Your task to perform on an android device: Do I have any events this weekend? Image 0: 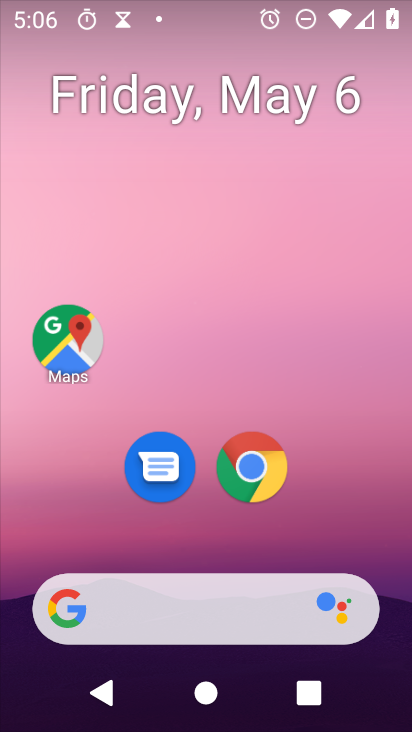
Step 0: drag from (275, 595) to (312, 95)
Your task to perform on an android device: Do I have any events this weekend? Image 1: 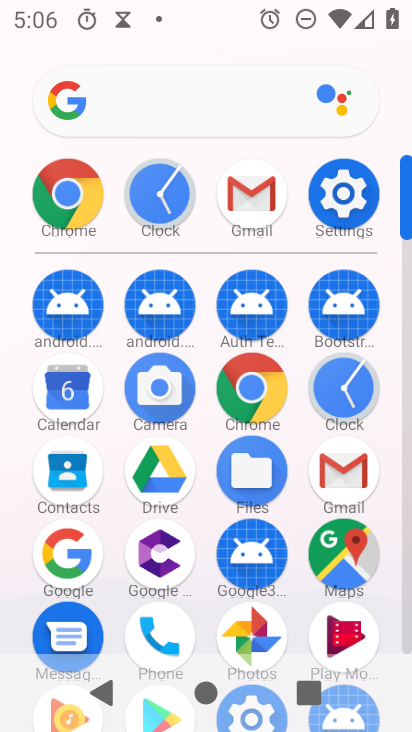
Step 1: click (351, 552)
Your task to perform on an android device: Do I have any events this weekend? Image 2: 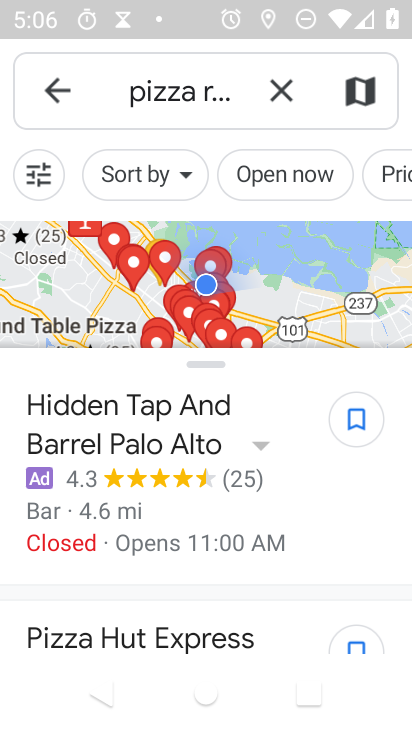
Step 2: press home button
Your task to perform on an android device: Do I have any events this weekend? Image 3: 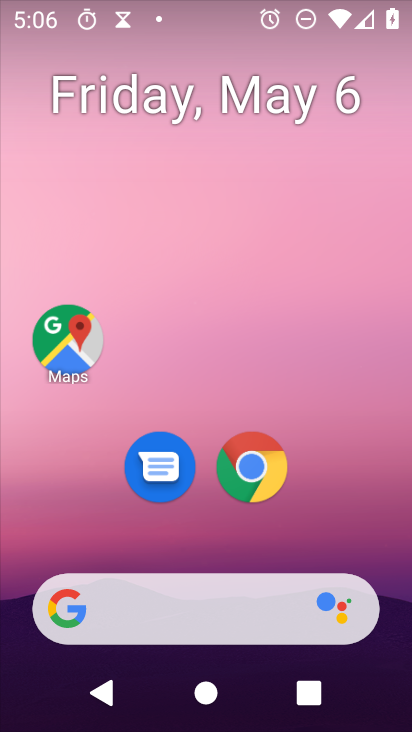
Step 3: drag from (264, 549) to (268, 43)
Your task to perform on an android device: Do I have any events this weekend? Image 4: 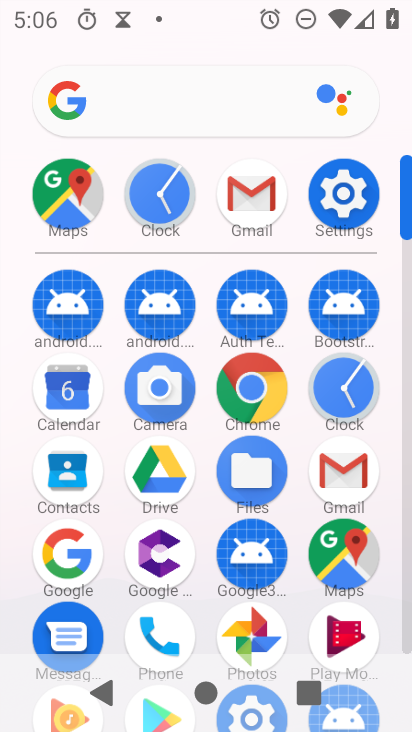
Step 4: click (91, 390)
Your task to perform on an android device: Do I have any events this weekend? Image 5: 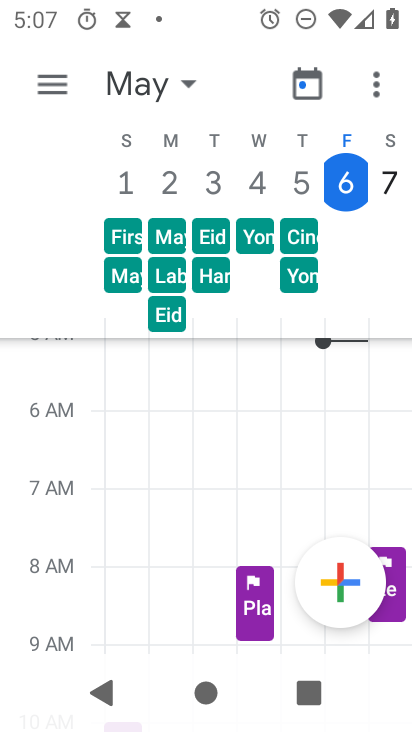
Step 5: drag from (304, 523) to (235, 224)
Your task to perform on an android device: Do I have any events this weekend? Image 6: 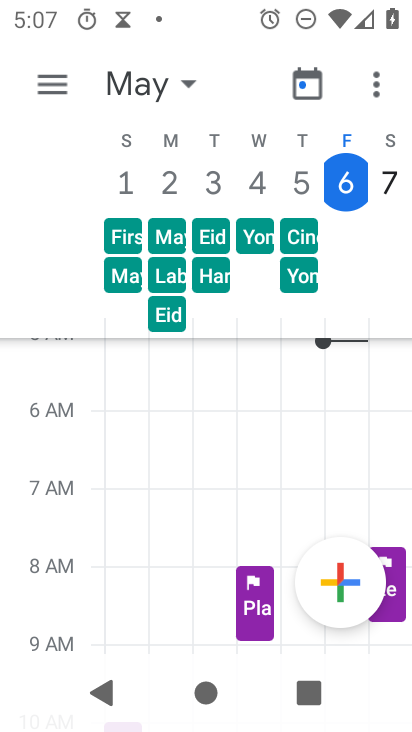
Step 6: drag from (191, 527) to (226, 244)
Your task to perform on an android device: Do I have any events this weekend? Image 7: 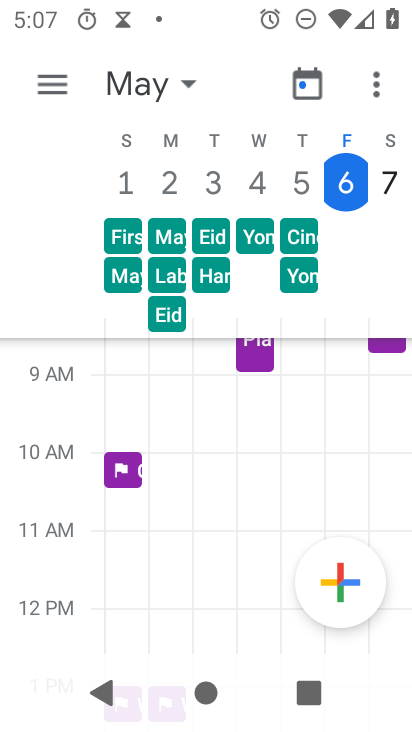
Step 7: drag from (202, 524) to (251, 201)
Your task to perform on an android device: Do I have any events this weekend? Image 8: 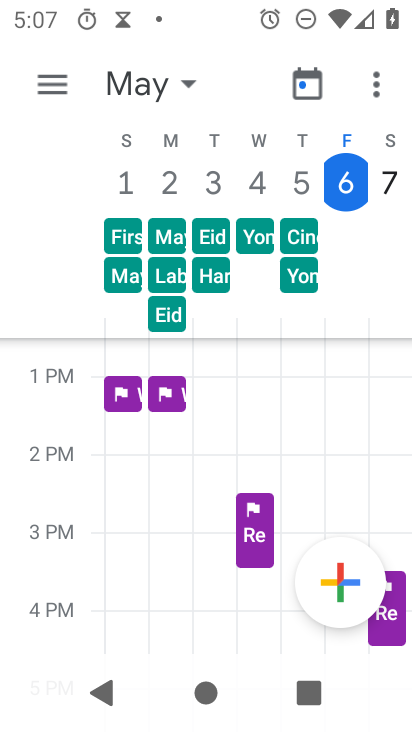
Step 8: drag from (252, 488) to (269, 311)
Your task to perform on an android device: Do I have any events this weekend? Image 9: 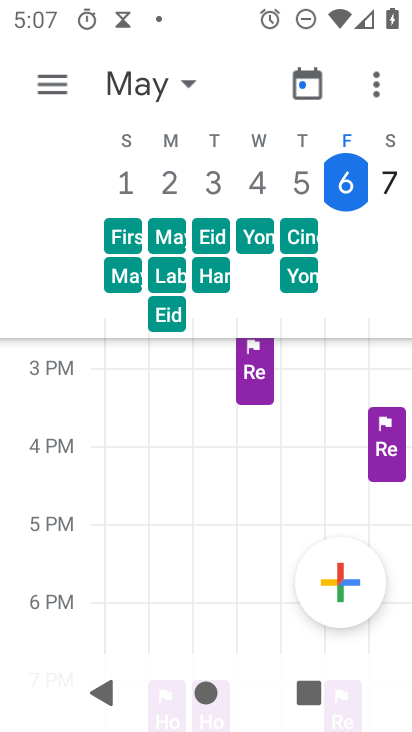
Step 9: click (135, 86)
Your task to perform on an android device: Do I have any events this weekend? Image 10: 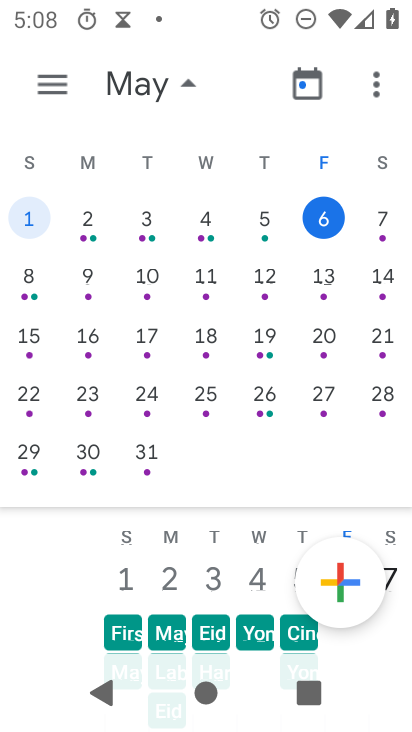
Step 10: task complete